Your task to perform on an android device: turn on notifications settings in the gmail app Image 0: 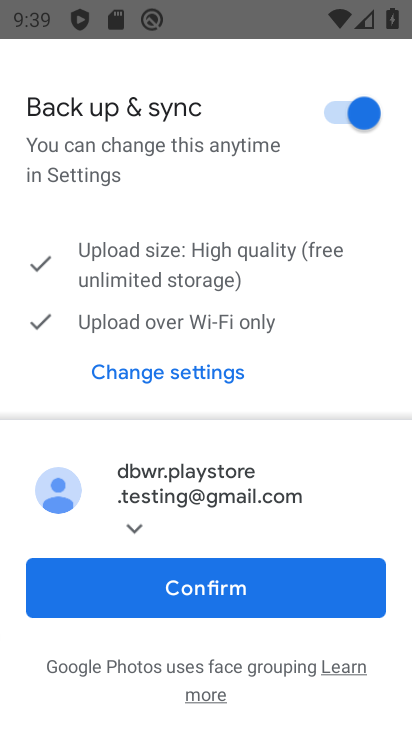
Step 0: press home button
Your task to perform on an android device: turn on notifications settings in the gmail app Image 1: 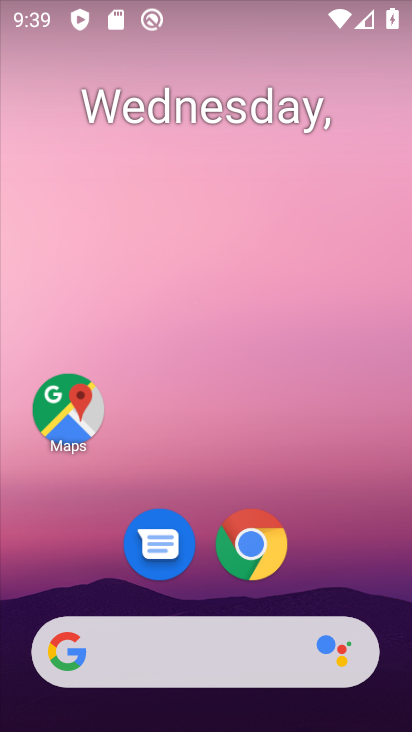
Step 1: drag from (324, 582) to (273, 53)
Your task to perform on an android device: turn on notifications settings in the gmail app Image 2: 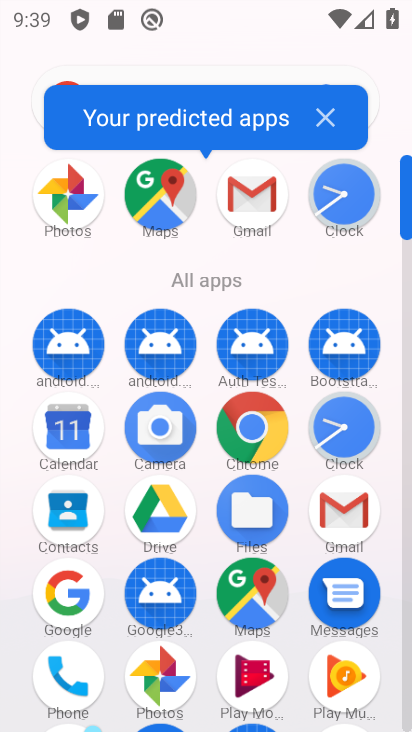
Step 2: drag from (291, 542) to (275, 184)
Your task to perform on an android device: turn on notifications settings in the gmail app Image 3: 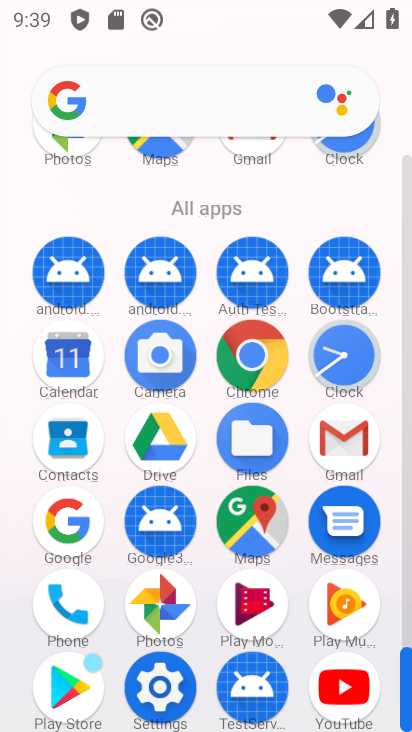
Step 3: click (331, 442)
Your task to perform on an android device: turn on notifications settings in the gmail app Image 4: 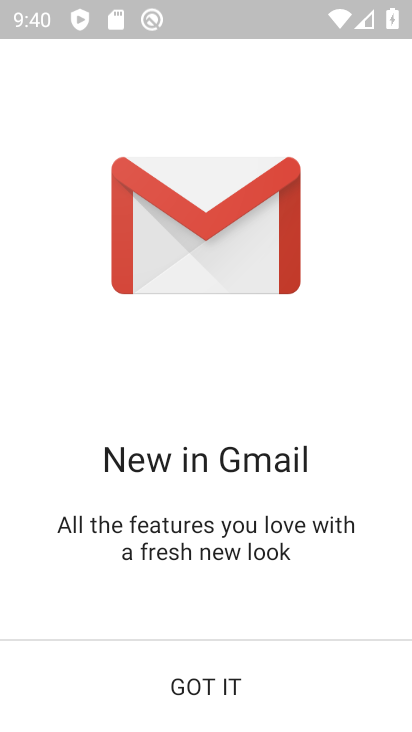
Step 4: click (209, 681)
Your task to perform on an android device: turn on notifications settings in the gmail app Image 5: 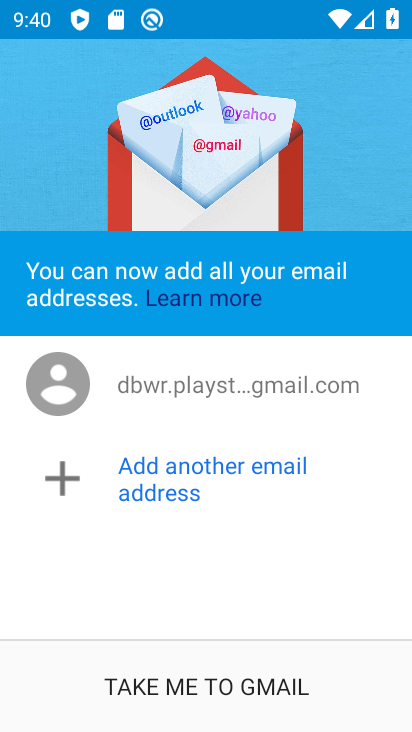
Step 5: click (209, 681)
Your task to perform on an android device: turn on notifications settings in the gmail app Image 6: 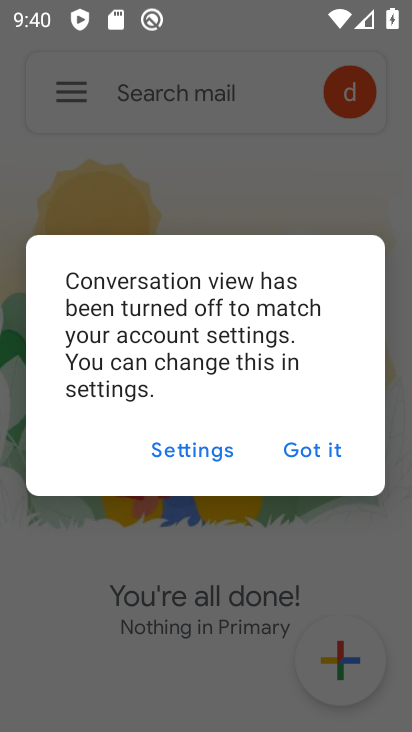
Step 6: click (296, 452)
Your task to perform on an android device: turn on notifications settings in the gmail app Image 7: 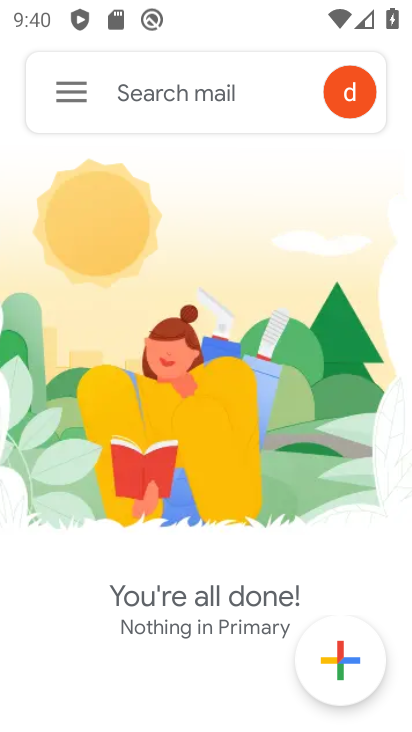
Step 7: click (54, 94)
Your task to perform on an android device: turn on notifications settings in the gmail app Image 8: 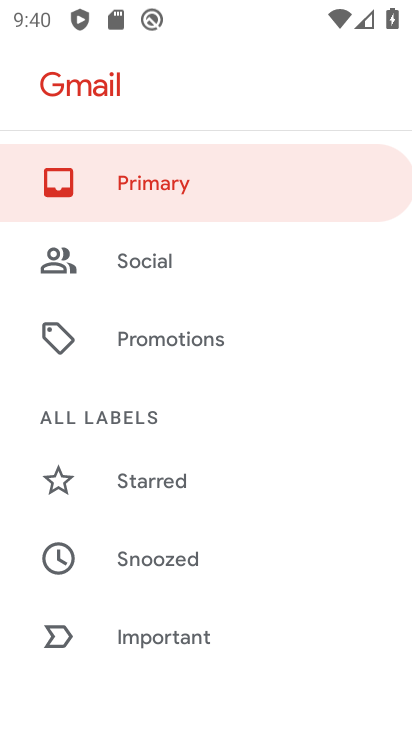
Step 8: drag from (158, 621) to (149, 208)
Your task to perform on an android device: turn on notifications settings in the gmail app Image 9: 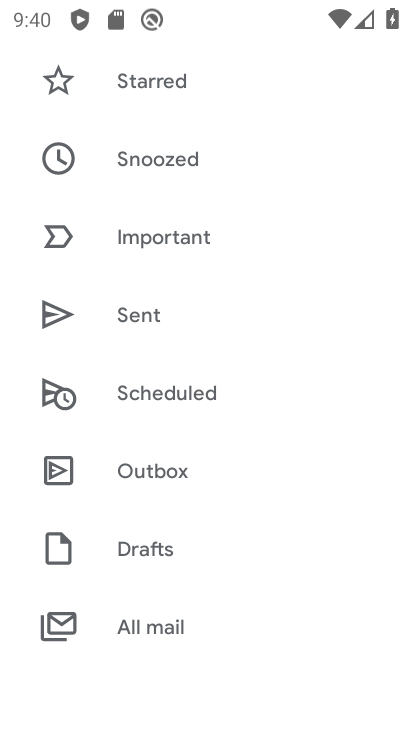
Step 9: drag from (109, 647) to (116, 129)
Your task to perform on an android device: turn on notifications settings in the gmail app Image 10: 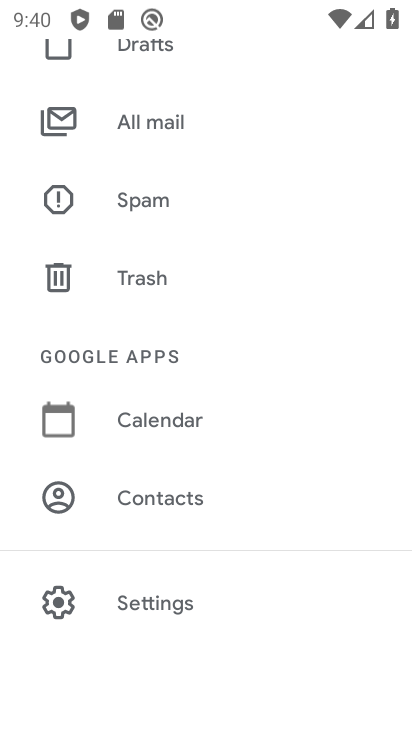
Step 10: click (105, 604)
Your task to perform on an android device: turn on notifications settings in the gmail app Image 11: 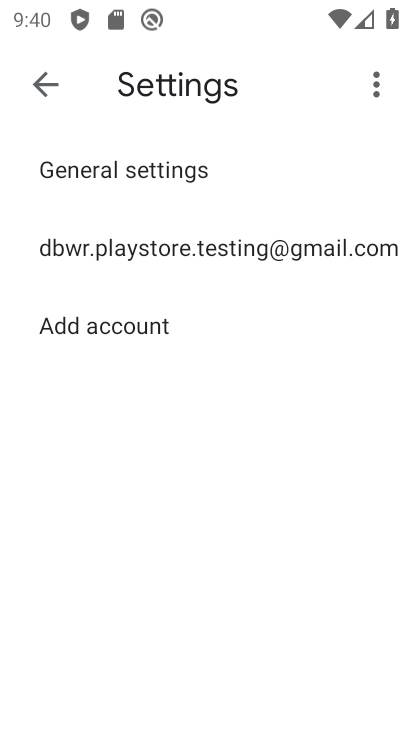
Step 11: click (125, 247)
Your task to perform on an android device: turn on notifications settings in the gmail app Image 12: 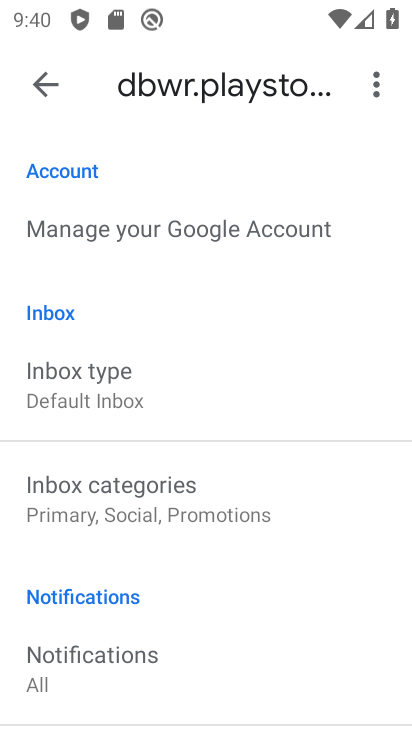
Step 12: drag from (164, 632) to (116, 202)
Your task to perform on an android device: turn on notifications settings in the gmail app Image 13: 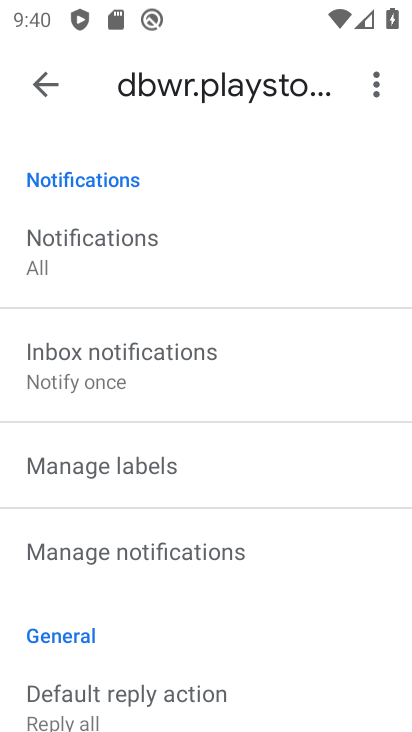
Step 13: click (136, 560)
Your task to perform on an android device: turn on notifications settings in the gmail app Image 14: 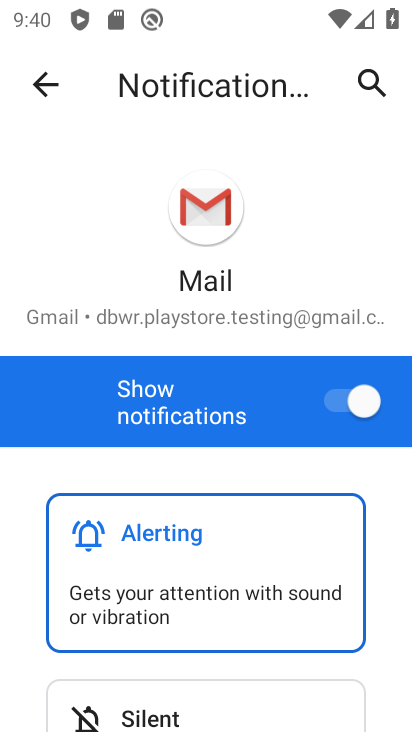
Step 14: task complete